Your task to perform on an android device: change the upload size in google photos Image 0: 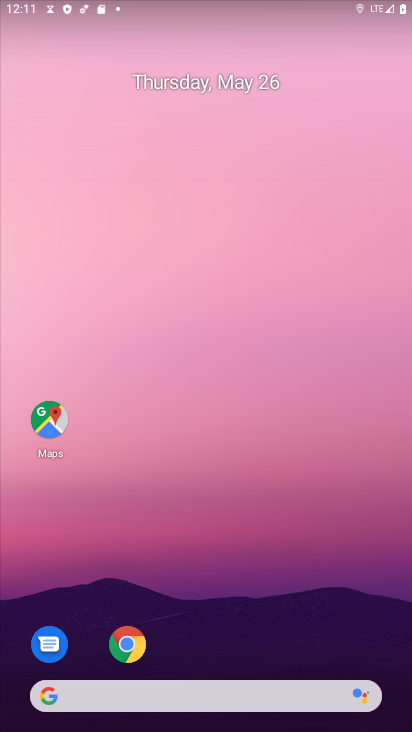
Step 0: drag from (278, 614) to (251, 141)
Your task to perform on an android device: change the upload size in google photos Image 1: 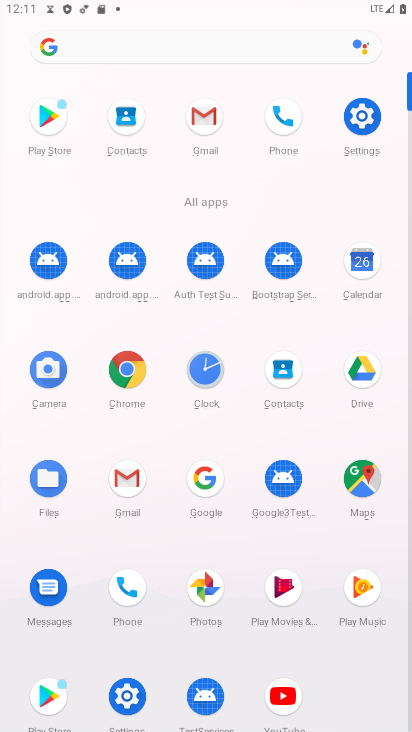
Step 1: click (205, 585)
Your task to perform on an android device: change the upload size in google photos Image 2: 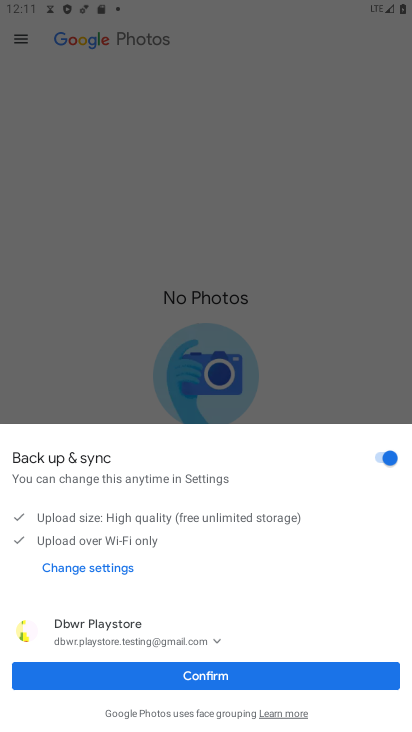
Step 2: click (205, 673)
Your task to perform on an android device: change the upload size in google photos Image 3: 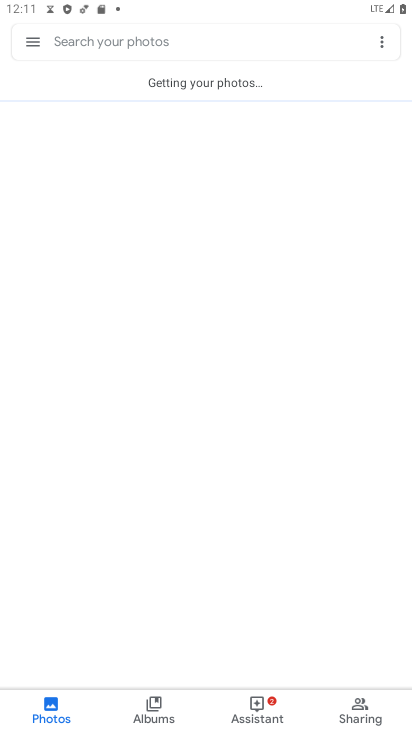
Step 3: click (32, 41)
Your task to perform on an android device: change the upload size in google photos Image 4: 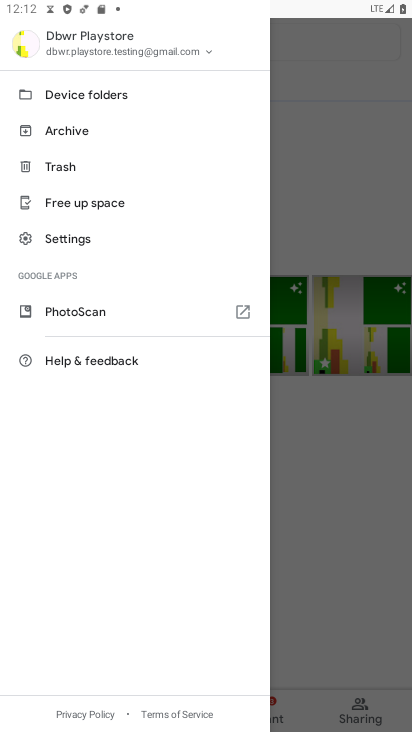
Step 4: click (68, 239)
Your task to perform on an android device: change the upload size in google photos Image 5: 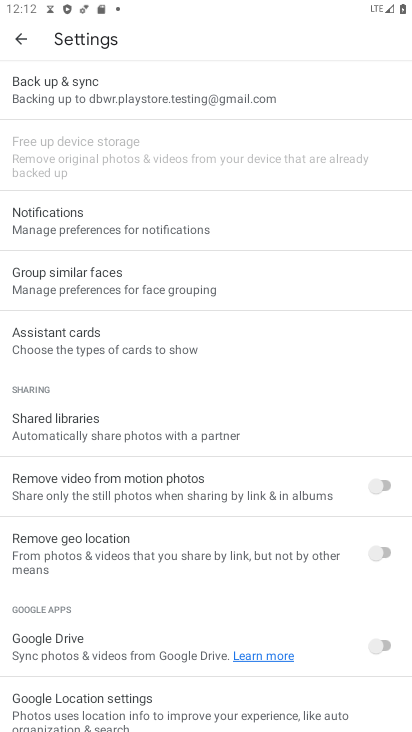
Step 5: click (85, 92)
Your task to perform on an android device: change the upload size in google photos Image 6: 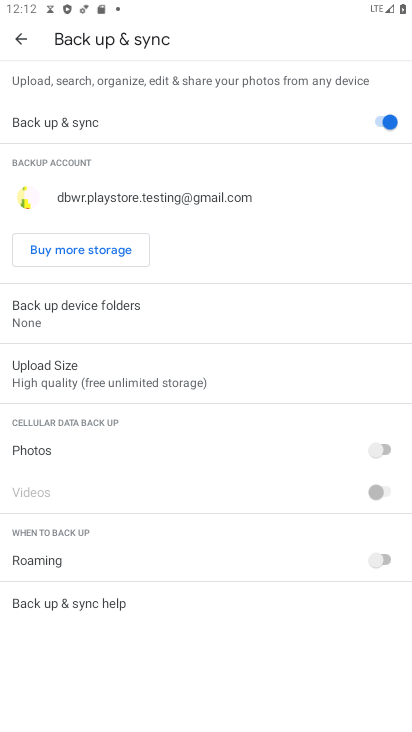
Step 6: task complete